Your task to perform on an android device: Open Reddit.com Image 0: 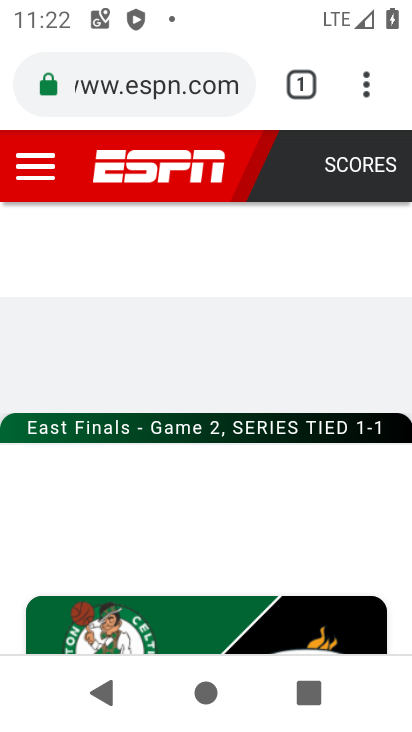
Step 0: click (302, 86)
Your task to perform on an android device: Open Reddit.com Image 1: 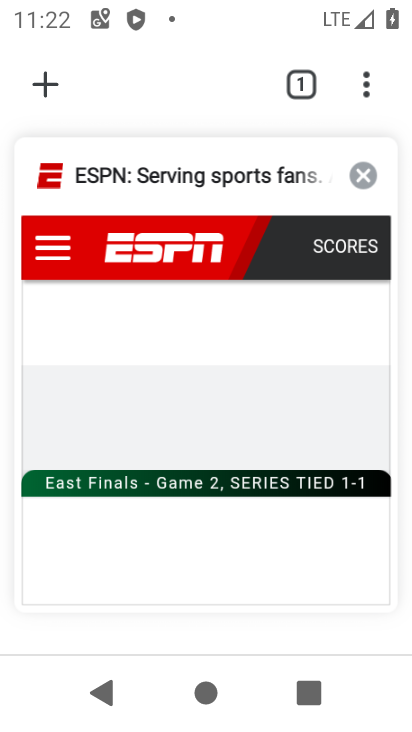
Step 1: click (51, 78)
Your task to perform on an android device: Open Reddit.com Image 2: 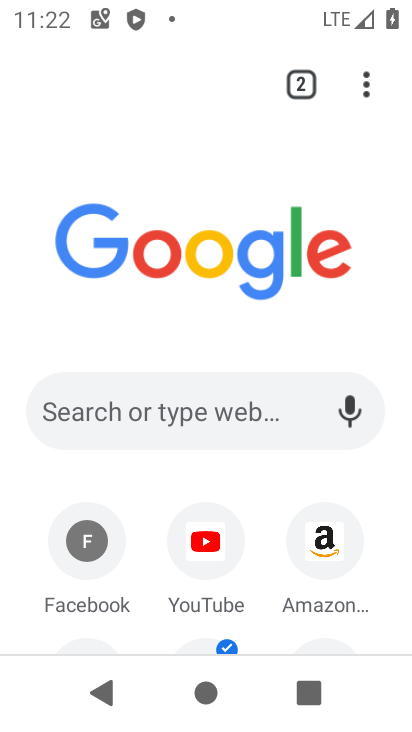
Step 2: click (160, 406)
Your task to perform on an android device: Open Reddit.com Image 3: 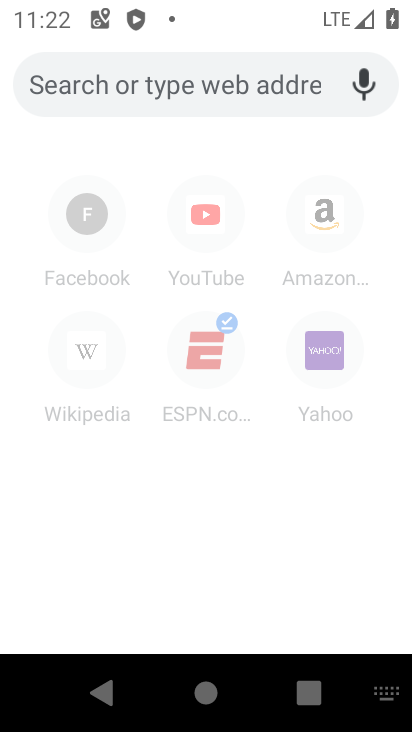
Step 3: type "reddit.com"
Your task to perform on an android device: Open Reddit.com Image 4: 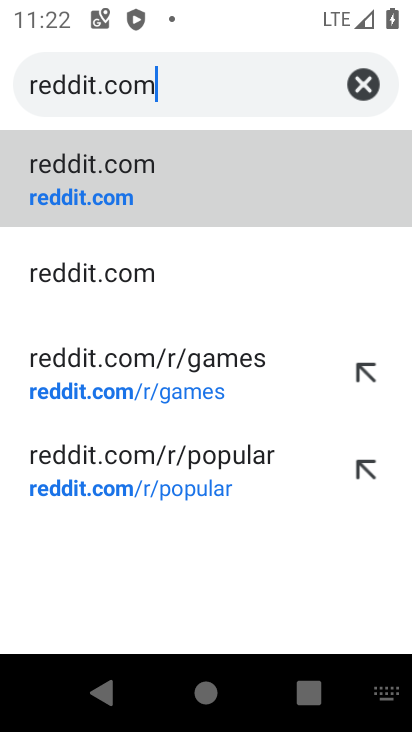
Step 4: click (173, 188)
Your task to perform on an android device: Open Reddit.com Image 5: 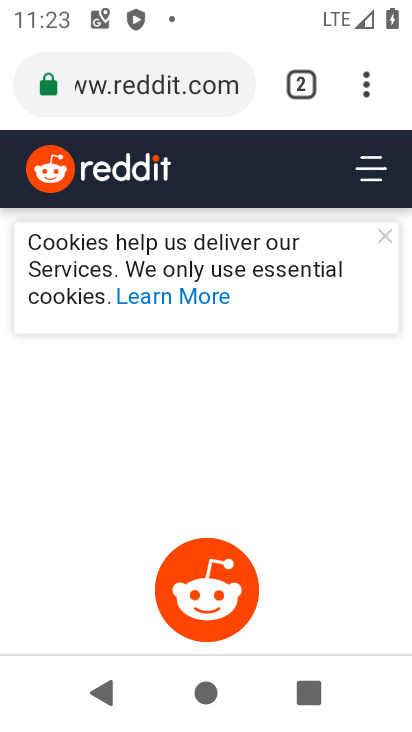
Step 5: task complete